Your task to perform on an android device: uninstall "Booking.com: Hotels and more" Image 0: 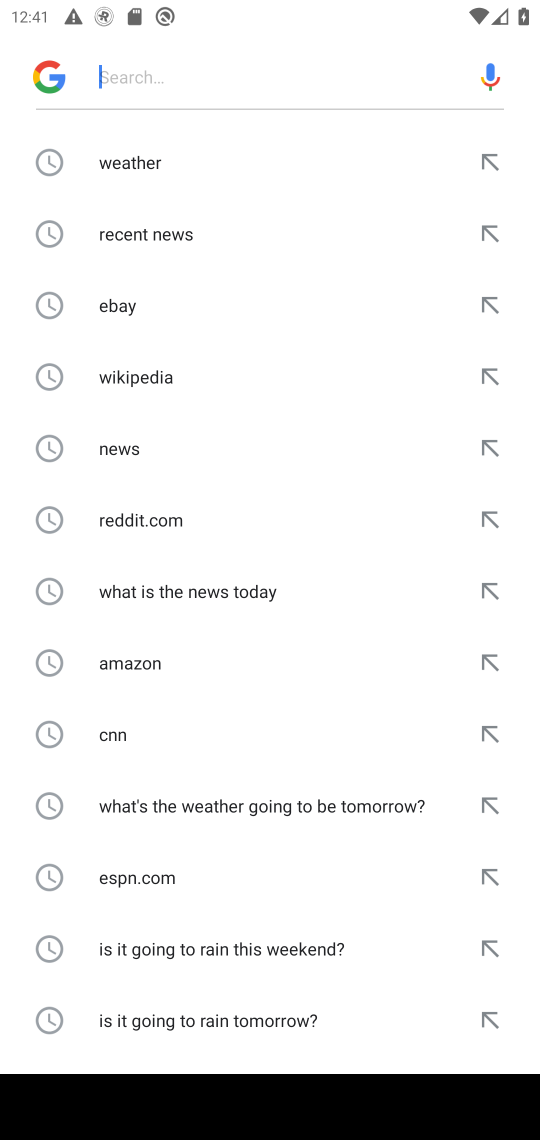
Step 0: click (183, 86)
Your task to perform on an android device: uninstall "Booking.com: Hotels and more" Image 1: 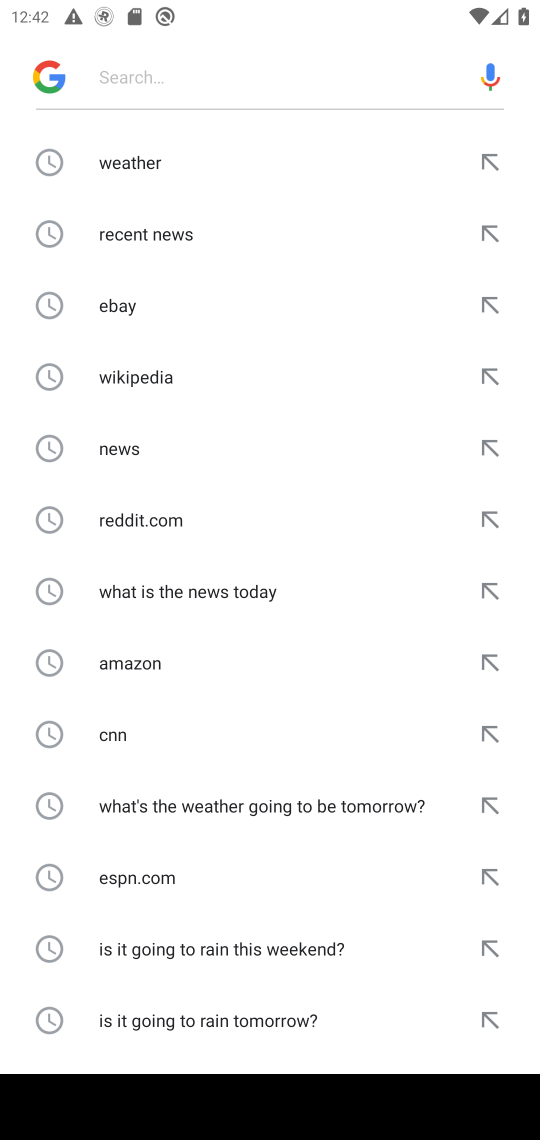
Step 1: type "Booking.com: Hotels and more"
Your task to perform on an android device: uninstall "Booking.com: Hotels and more" Image 2: 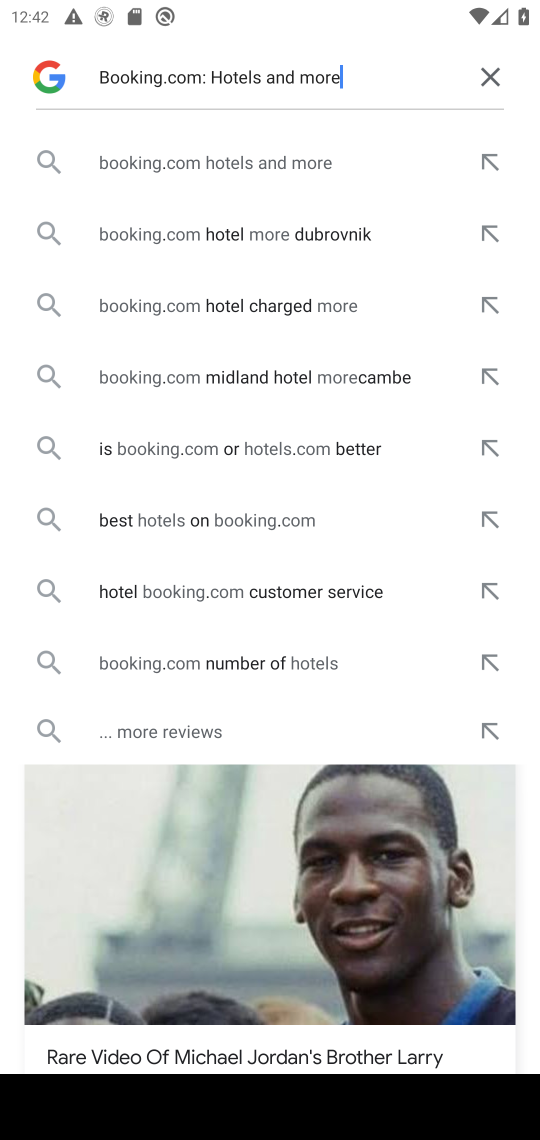
Step 2: click (303, 157)
Your task to perform on an android device: uninstall "Booking.com: Hotels and more" Image 3: 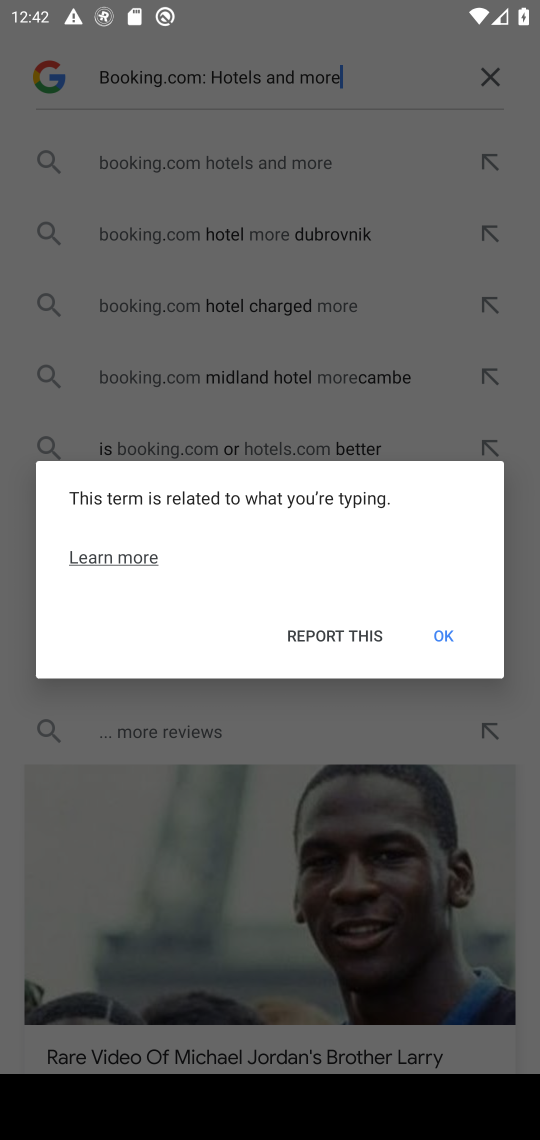
Step 3: click (437, 632)
Your task to perform on an android device: uninstall "Booking.com: Hotels and more" Image 4: 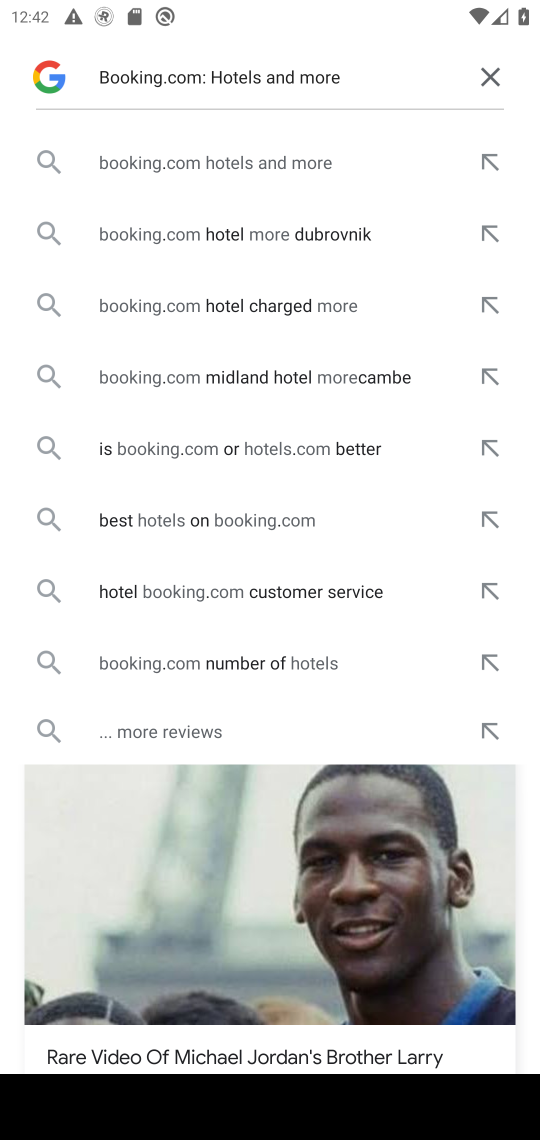
Step 4: task complete